Your task to perform on an android device: Open Chrome and go to the settings page Image 0: 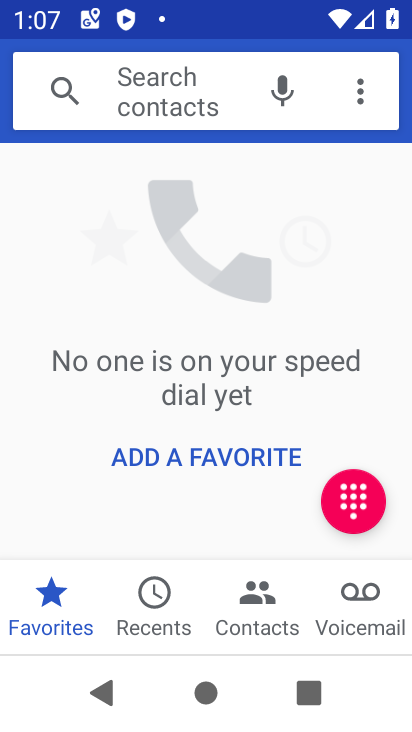
Step 0: press home button
Your task to perform on an android device: Open Chrome and go to the settings page Image 1: 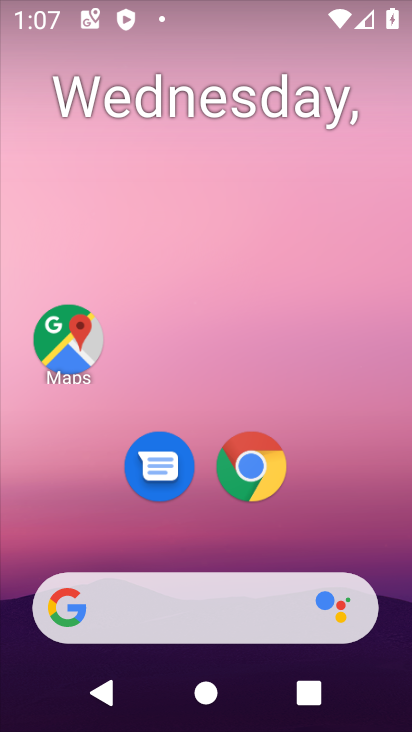
Step 1: click (246, 465)
Your task to perform on an android device: Open Chrome and go to the settings page Image 2: 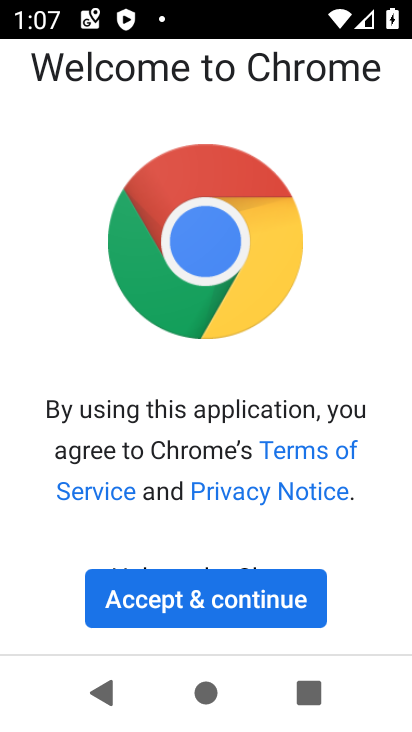
Step 2: click (190, 608)
Your task to perform on an android device: Open Chrome and go to the settings page Image 3: 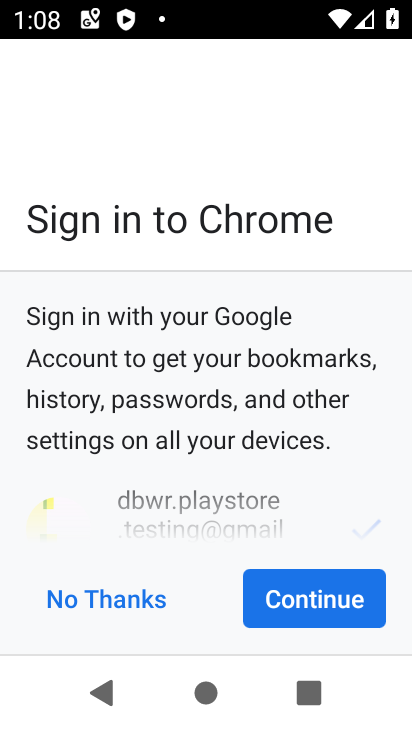
Step 3: click (278, 583)
Your task to perform on an android device: Open Chrome and go to the settings page Image 4: 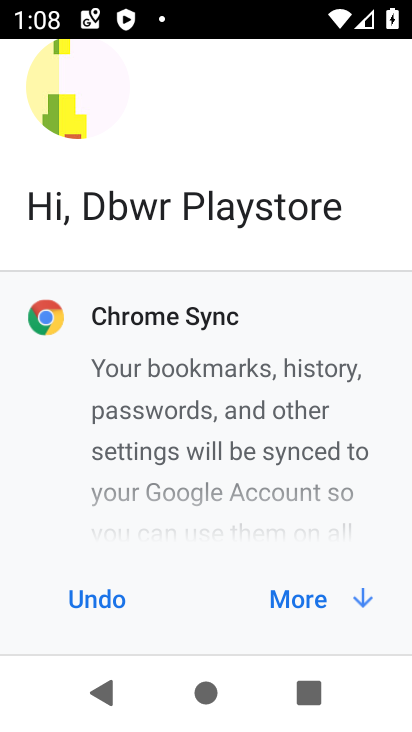
Step 4: click (278, 583)
Your task to perform on an android device: Open Chrome and go to the settings page Image 5: 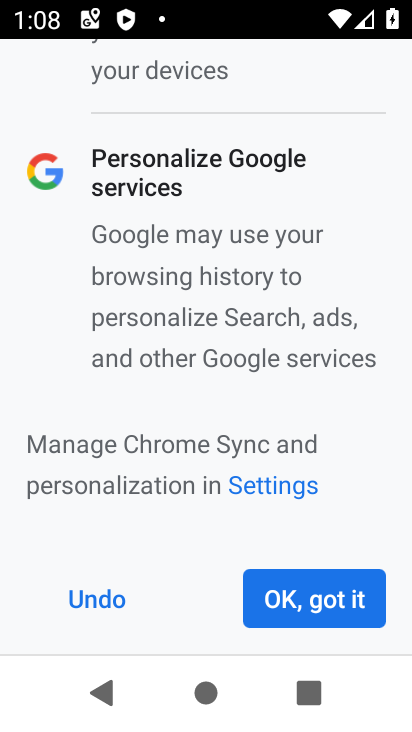
Step 5: click (278, 583)
Your task to perform on an android device: Open Chrome and go to the settings page Image 6: 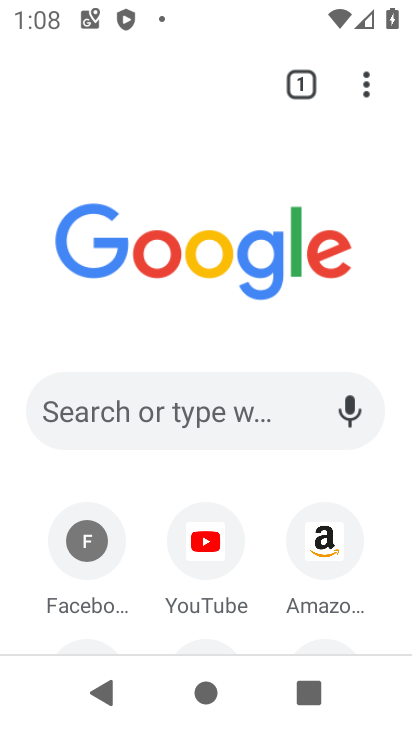
Step 6: click (278, 583)
Your task to perform on an android device: Open Chrome and go to the settings page Image 7: 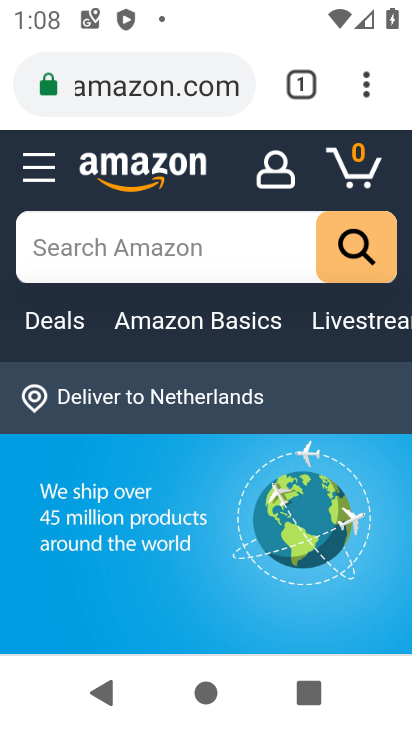
Step 7: click (382, 110)
Your task to perform on an android device: Open Chrome and go to the settings page Image 8: 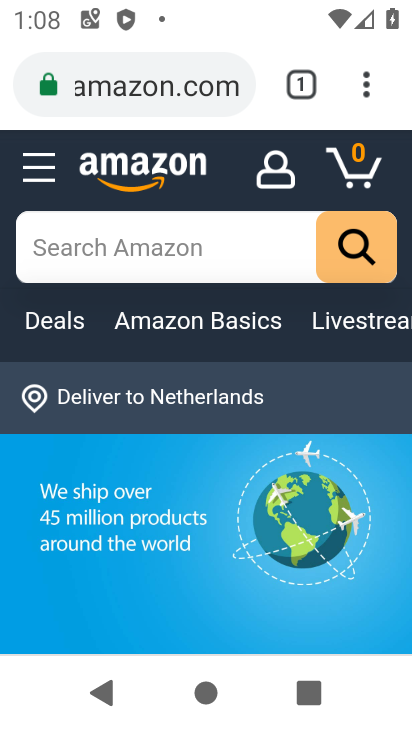
Step 8: click (382, 110)
Your task to perform on an android device: Open Chrome and go to the settings page Image 9: 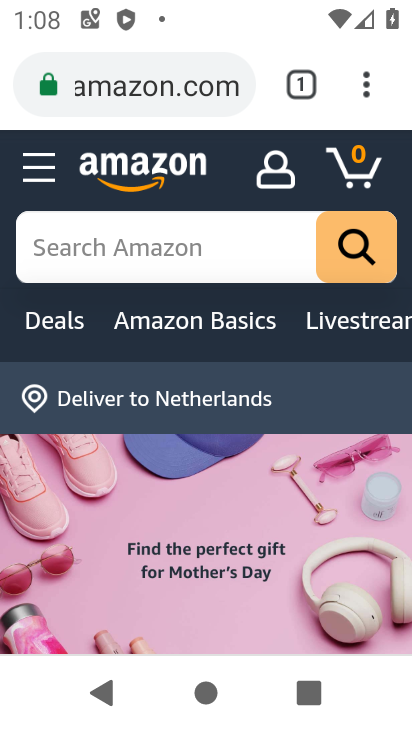
Step 9: click (377, 95)
Your task to perform on an android device: Open Chrome and go to the settings page Image 10: 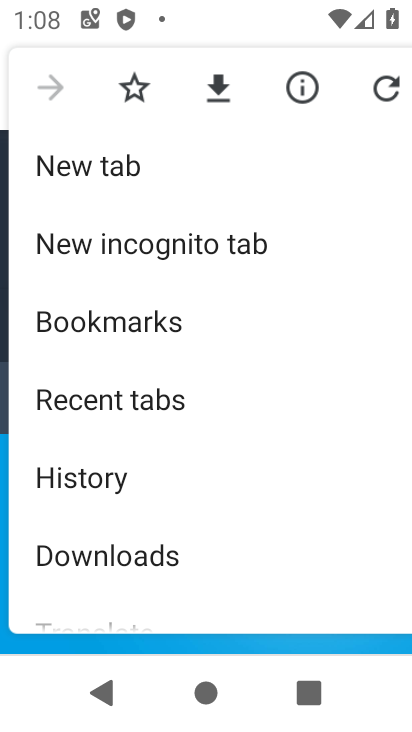
Step 10: drag from (200, 565) to (137, 182)
Your task to perform on an android device: Open Chrome and go to the settings page Image 11: 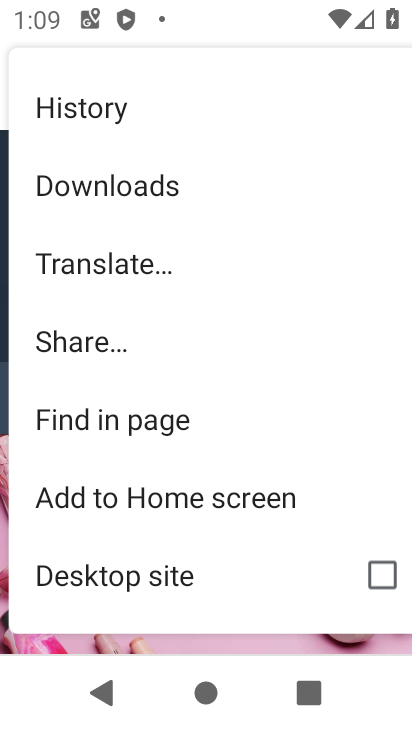
Step 11: drag from (153, 465) to (183, 160)
Your task to perform on an android device: Open Chrome and go to the settings page Image 12: 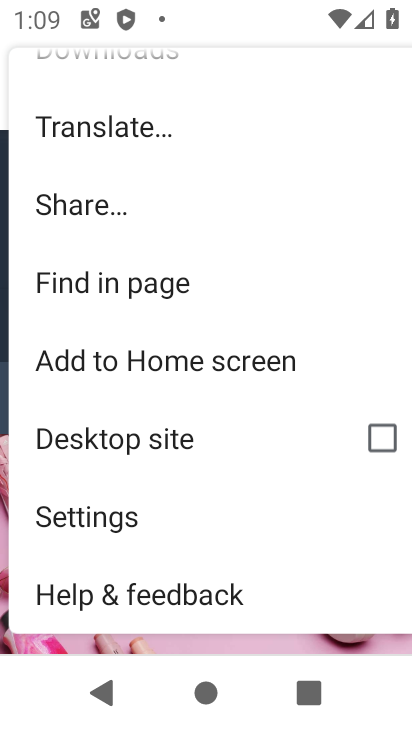
Step 12: click (147, 505)
Your task to perform on an android device: Open Chrome and go to the settings page Image 13: 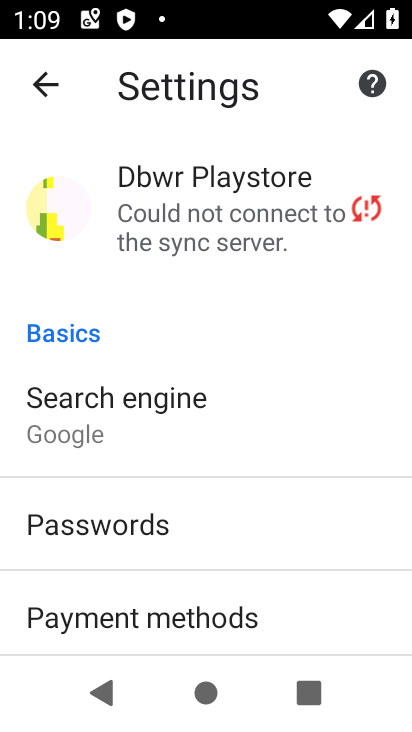
Step 13: task complete